Your task to perform on an android device: What's the weather today? Image 0: 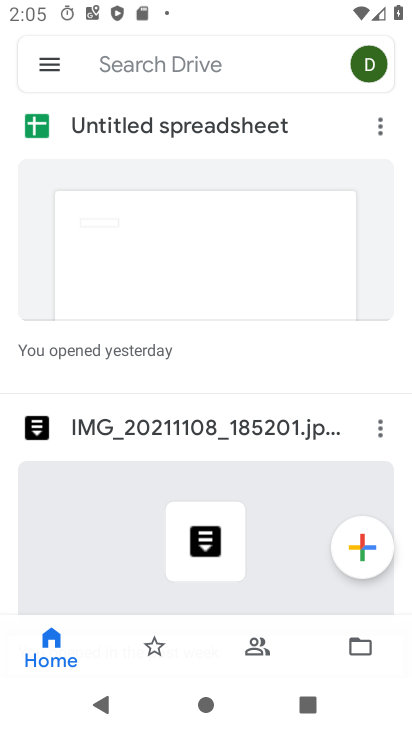
Step 0: press home button
Your task to perform on an android device: What's the weather today? Image 1: 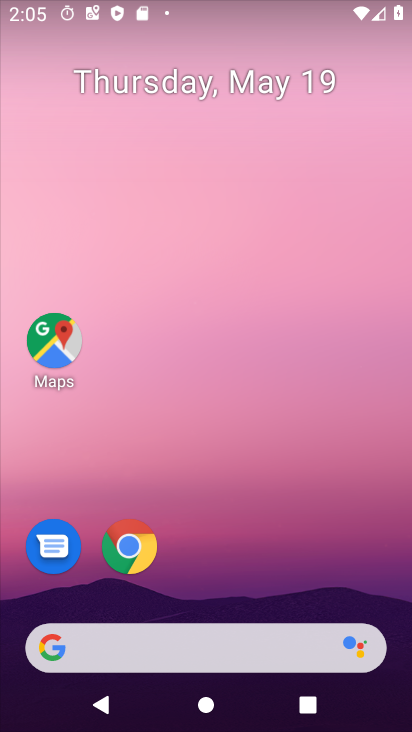
Step 1: click (153, 655)
Your task to perform on an android device: What's the weather today? Image 2: 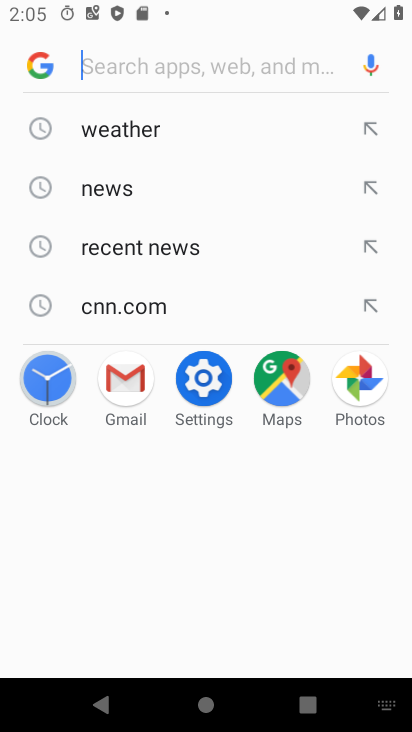
Step 2: click (151, 131)
Your task to perform on an android device: What's the weather today? Image 3: 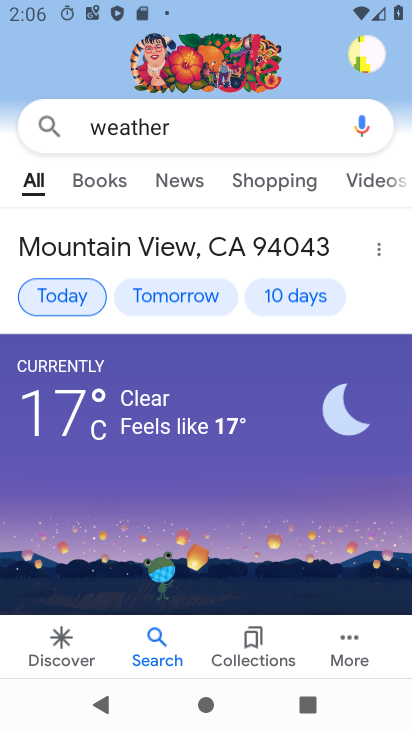
Step 3: task complete